Your task to perform on an android device: turn notification dots off Image 0: 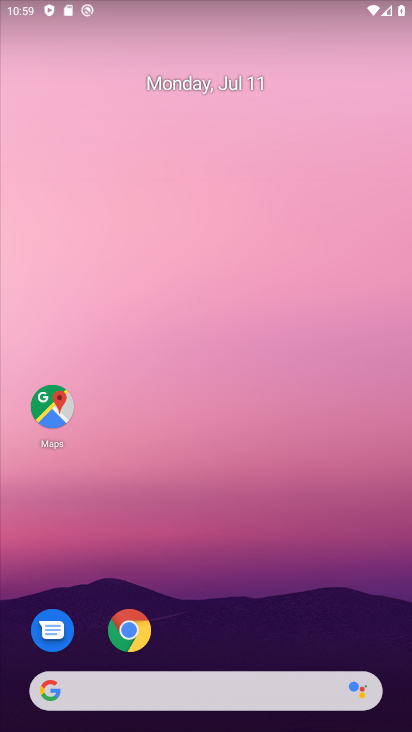
Step 0: drag from (253, 641) to (199, 20)
Your task to perform on an android device: turn notification dots off Image 1: 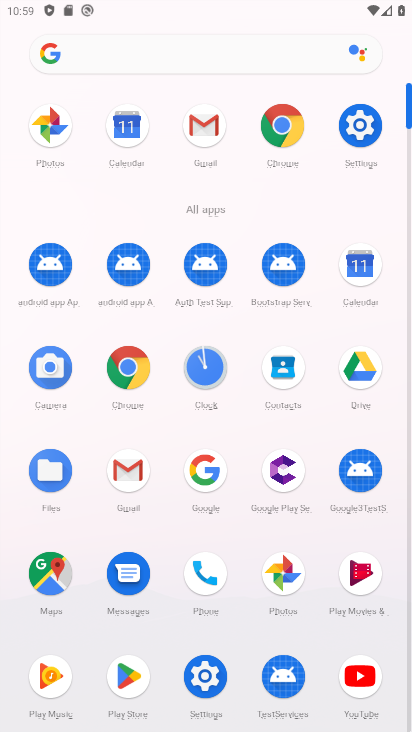
Step 1: click (370, 124)
Your task to perform on an android device: turn notification dots off Image 2: 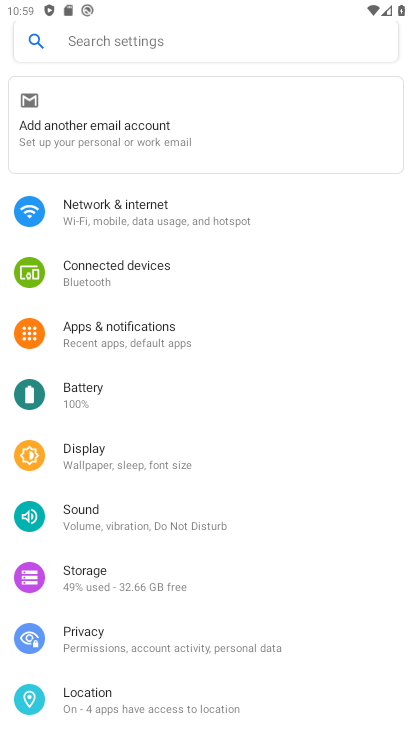
Step 2: click (190, 335)
Your task to perform on an android device: turn notification dots off Image 3: 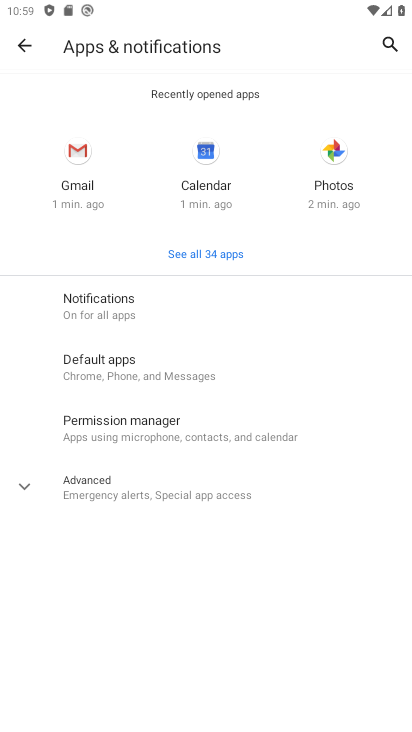
Step 3: click (134, 305)
Your task to perform on an android device: turn notification dots off Image 4: 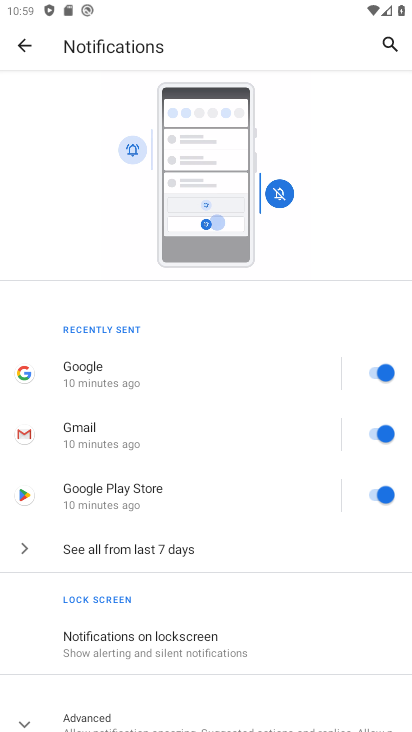
Step 4: drag from (295, 688) to (246, 339)
Your task to perform on an android device: turn notification dots off Image 5: 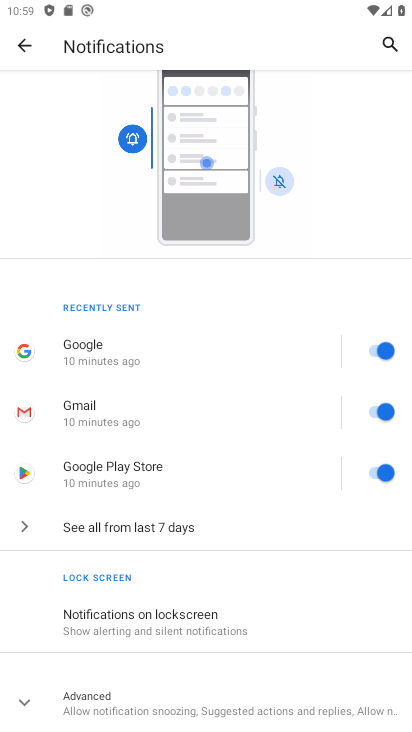
Step 5: click (271, 698)
Your task to perform on an android device: turn notification dots off Image 6: 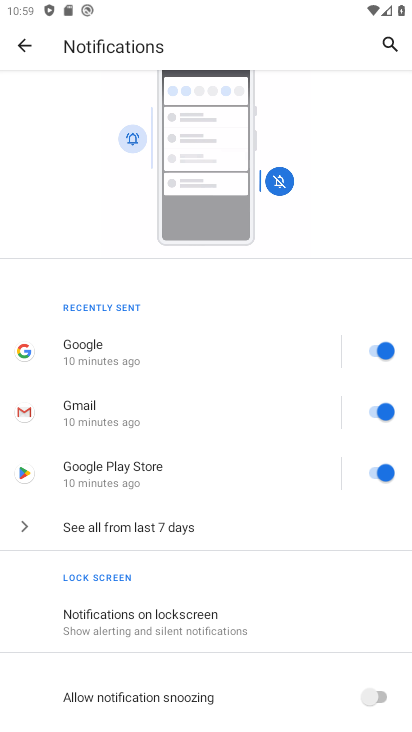
Step 6: task complete